Your task to perform on an android device: change your default location settings in chrome Image 0: 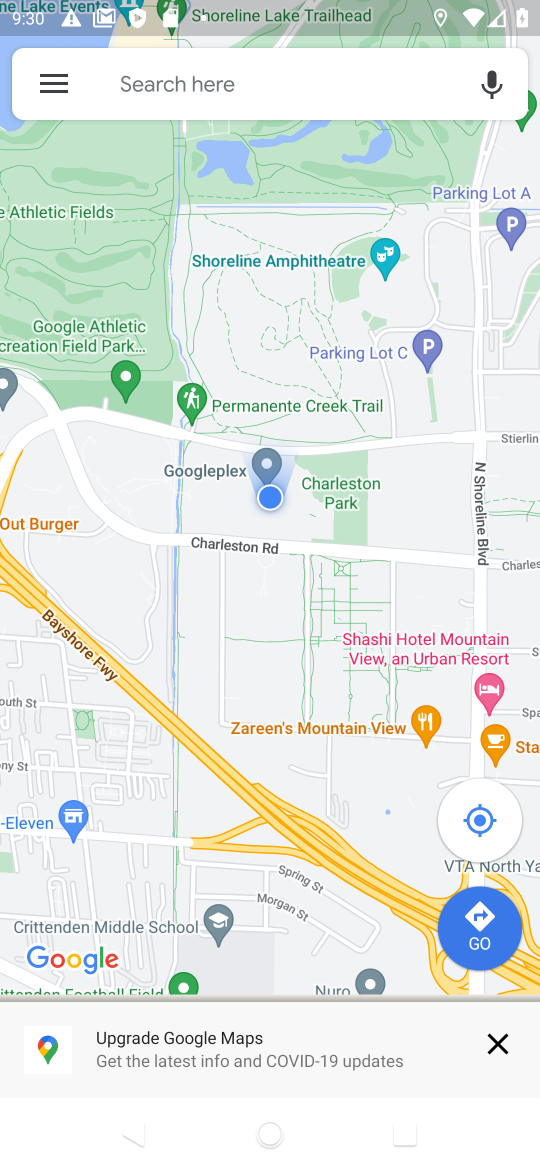
Step 0: press home button
Your task to perform on an android device: change your default location settings in chrome Image 1: 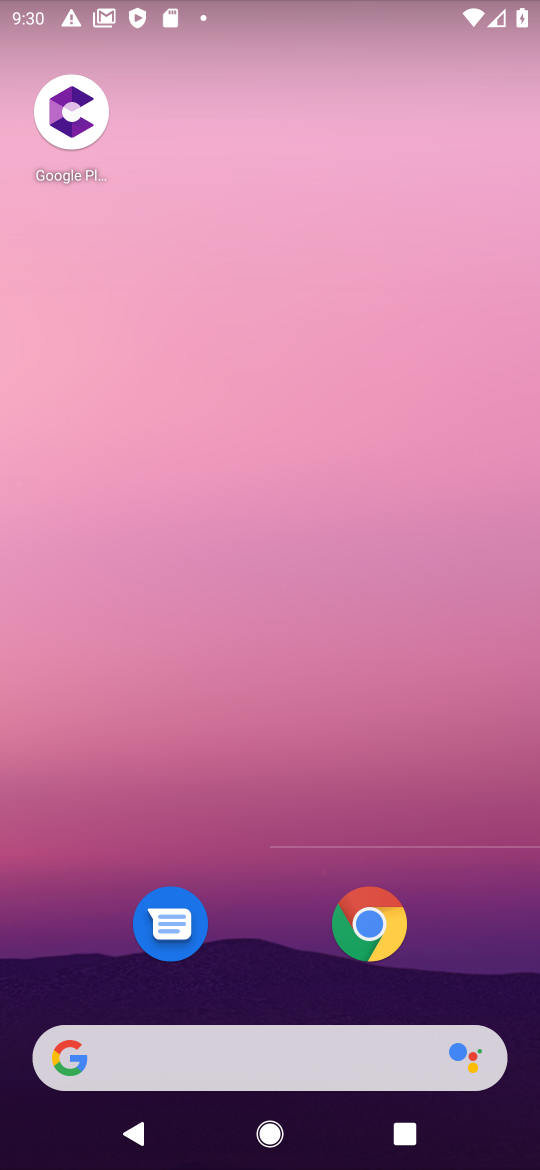
Step 1: drag from (251, 947) to (377, 15)
Your task to perform on an android device: change your default location settings in chrome Image 2: 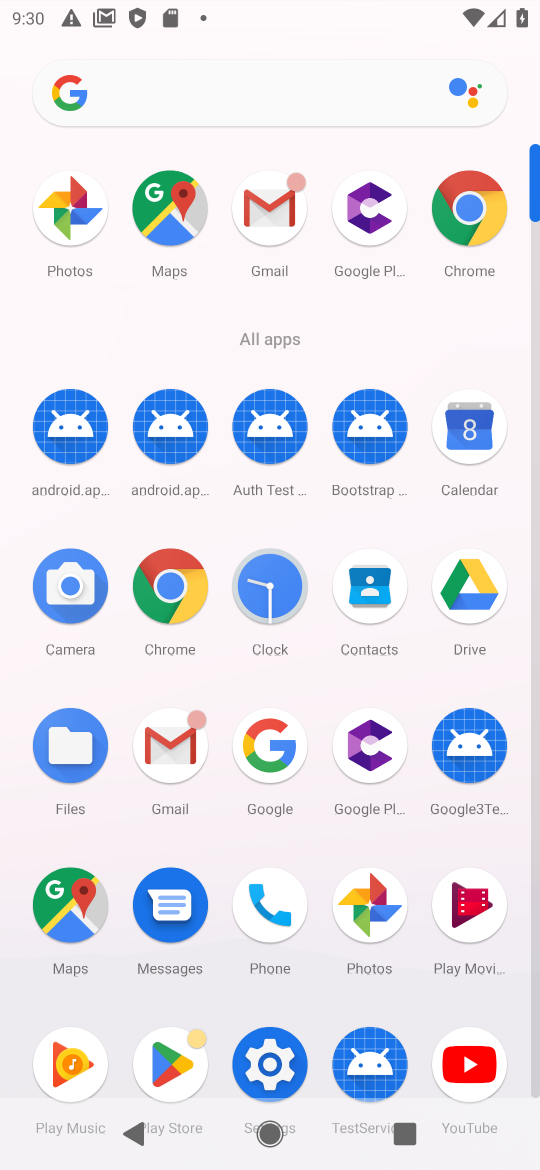
Step 2: drag from (321, 857) to (369, 168)
Your task to perform on an android device: change your default location settings in chrome Image 3: 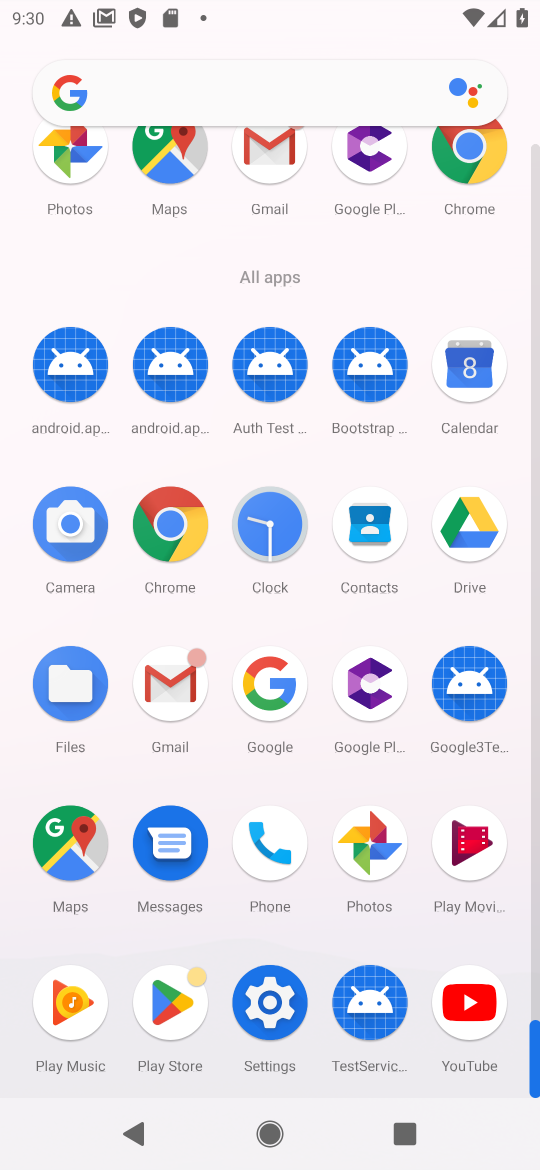
Step 3: click (272, 998)
Your task to perform on an android device: change your default location settings in chrome Image 4: 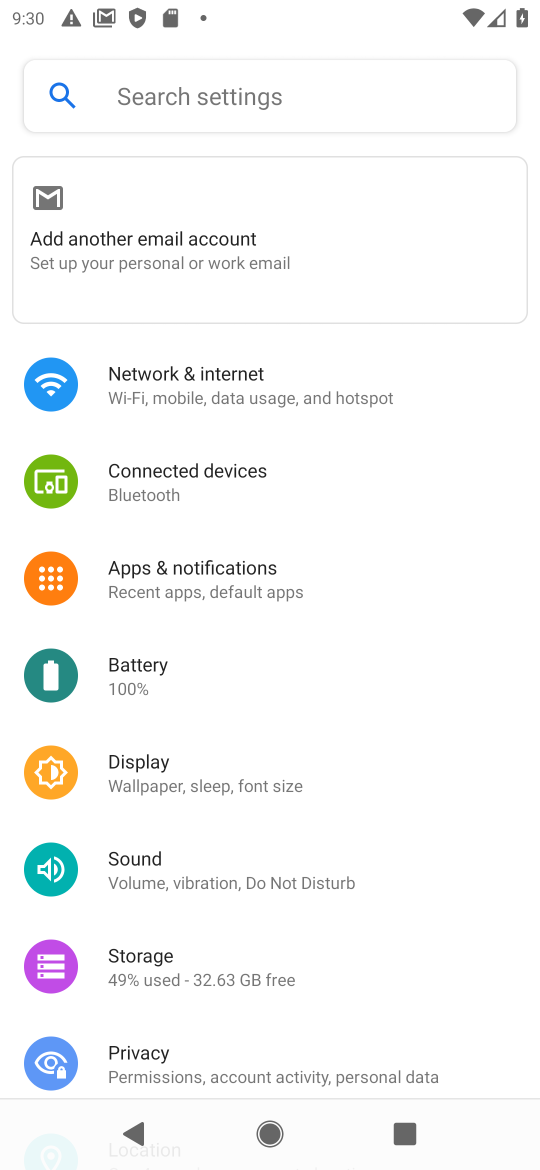
Step 4: drag from (261, 958) to (335, 518)
Your task to perform on an android device: change your default location settings in chrome Image 5: 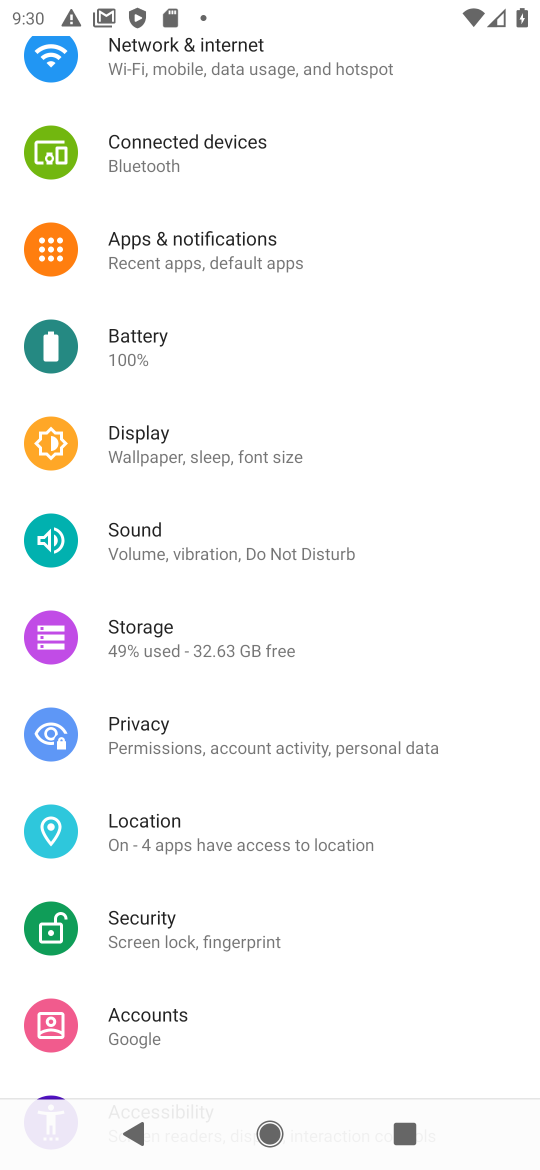
Step 5: click (131, 833)
Your task to perform on an android device: change your default location settings in chrome Image 6: 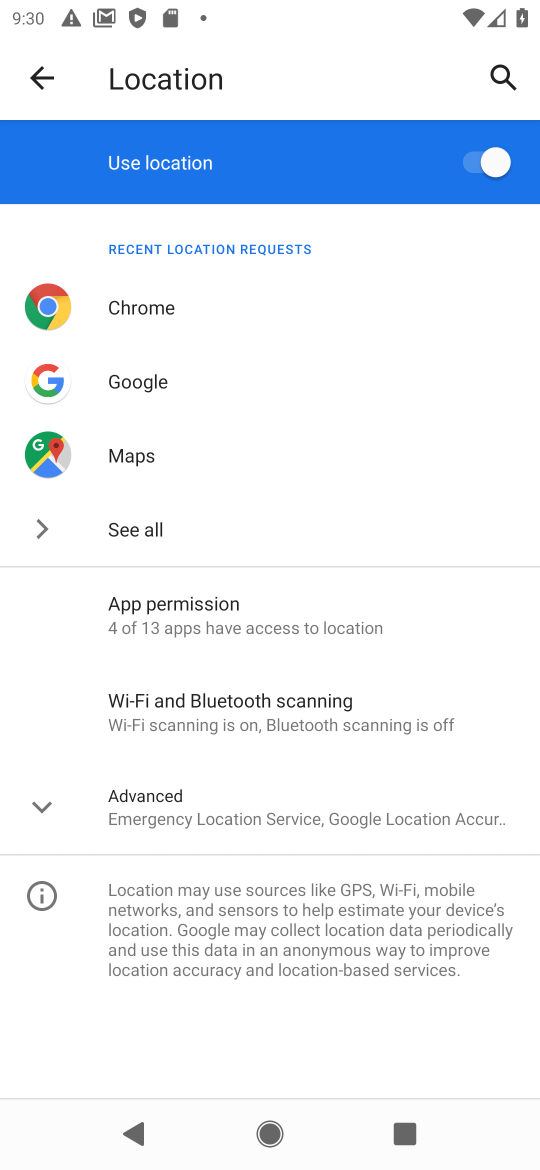
Step 6: task complete